Your task to perform on an android device: Open calendar and show me the second week of next month Image 0: 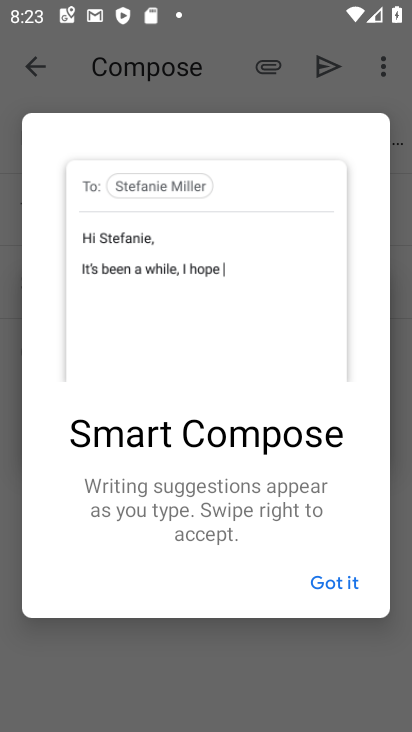
Step 0: press home button
Your task to perform on an android device: Open calendar and show me the second week of next month Image 1: 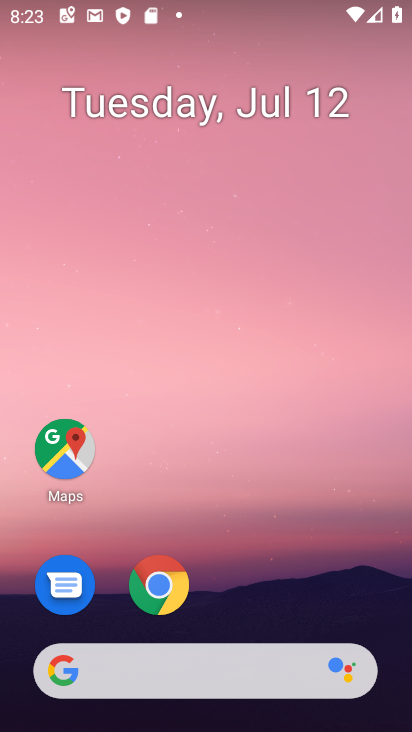
Step 1: drag from (290, 550) to (294, 77)
Your task to perform on an android device: Open calendar and show me the second week of next month Image 2: 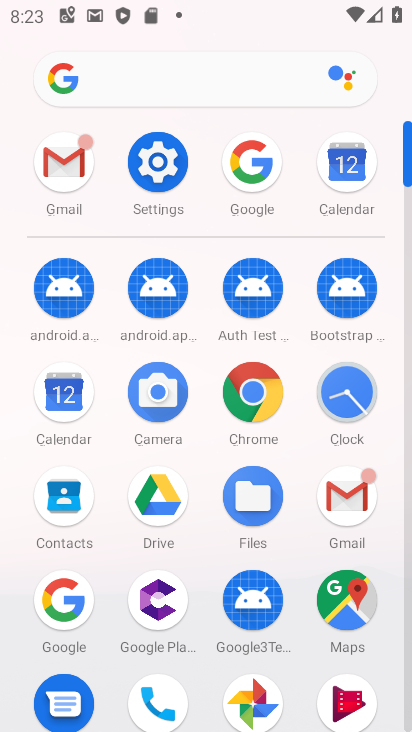
Step 2: click (65, 396)
Your task to perform on an android device: Open calendar and show me the second week of next month Image 3: 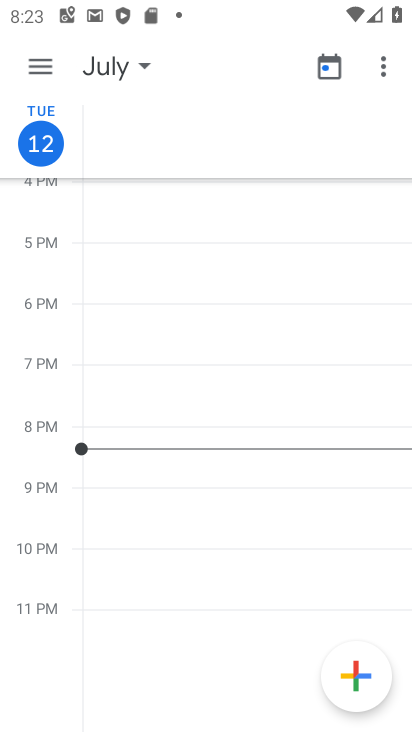
Step 3: click (49, 67)
Your task to perform on an android device: Open calendar and show me the second week of next month Image 4: 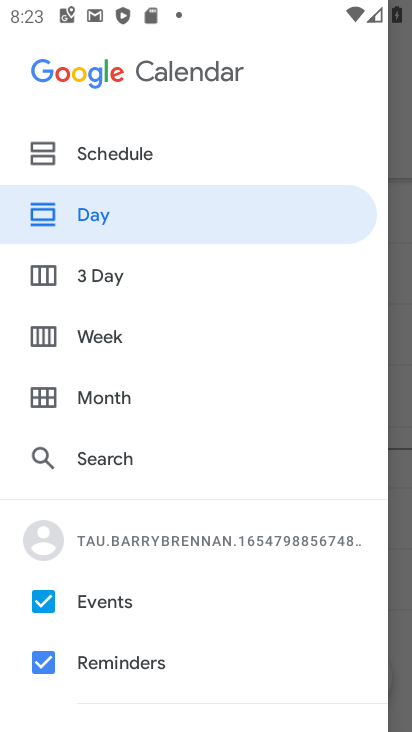
Step 4: click (45, 393)
Your task to perform on an android device: Open calendar and show me the second week of next month Image 5: 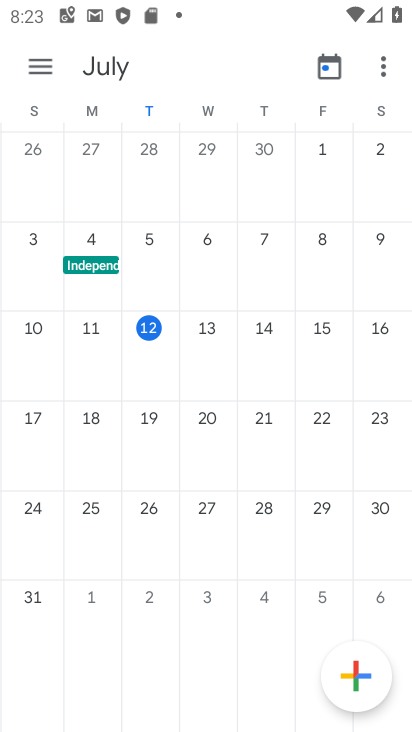
Step 5: drag from (383, 454) to (20, 470)
Your task to perform on an android device: Open calendar and show me the second week of next month Image 6: 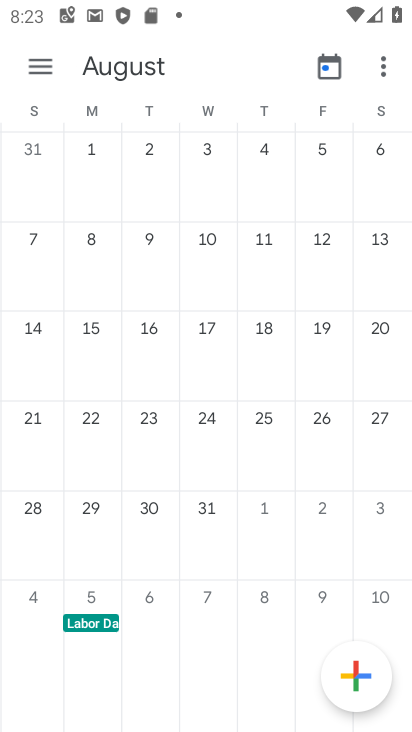
Step 6: click (29, 327)
Your task to perform on an android device: Open calendar and show me the second week of next month Image 7: 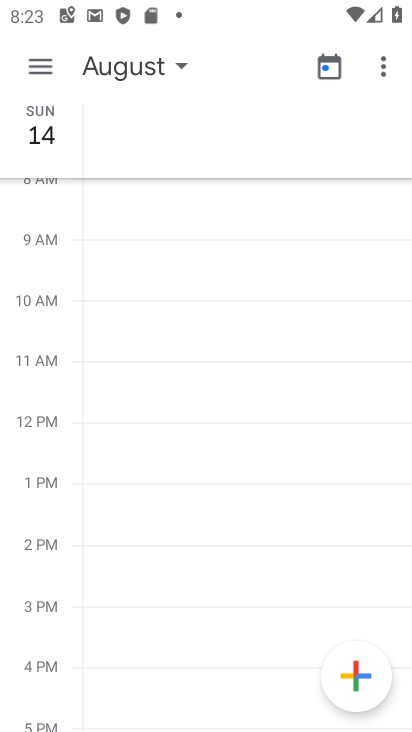
Step 7: click (37, 63)
Your task to perform on an android device: Open calendar and show me the second week of next month Image 8: 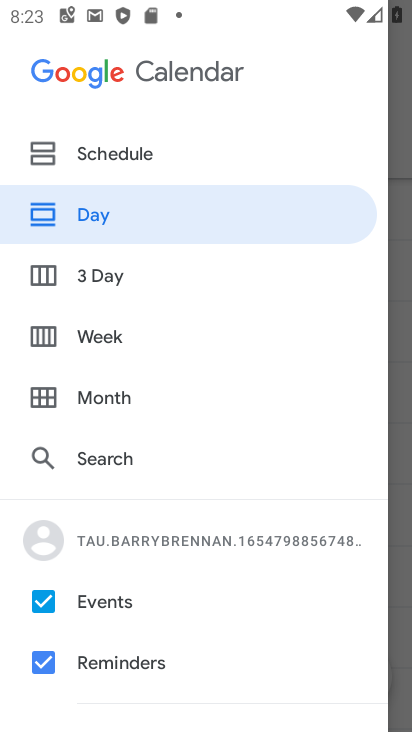
Step 8: click (46, 336)
Your task to perform on an android device: Open calendar and show me the second week of next month Image 9: 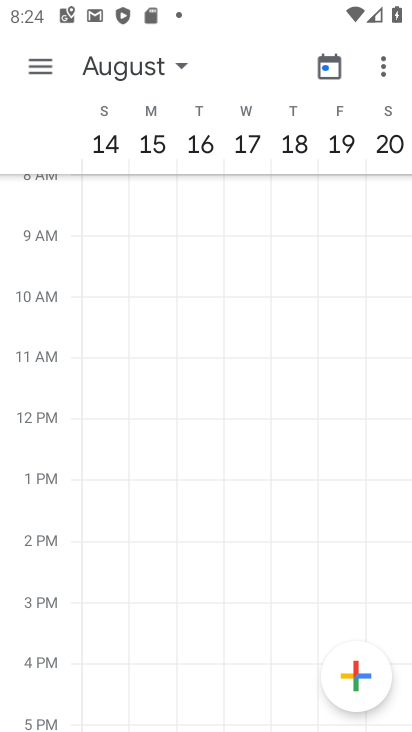
Step 9: task complete